Your task to perform on an android device: Open my contact list Image 0: 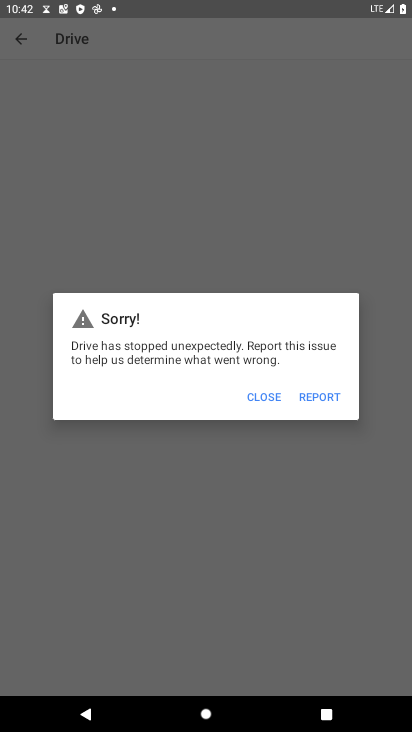
Step 0: press home button
Your task to perform on an android device: Open my contact list Image 1: 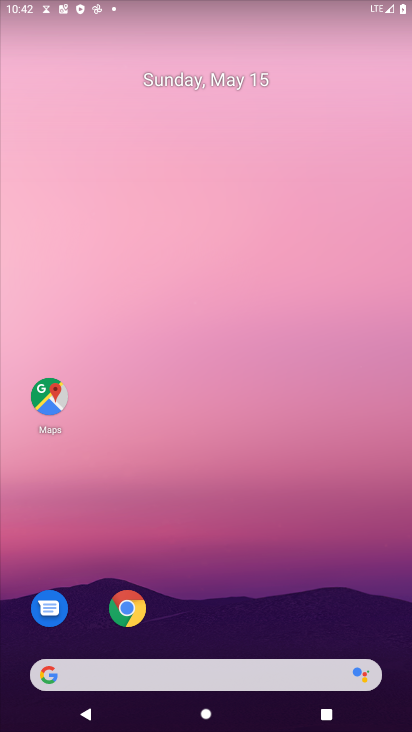
Step 1: drag from (375, 550) to (372, 1)
Your task to perform on an android device: Open my contact list Image 2: 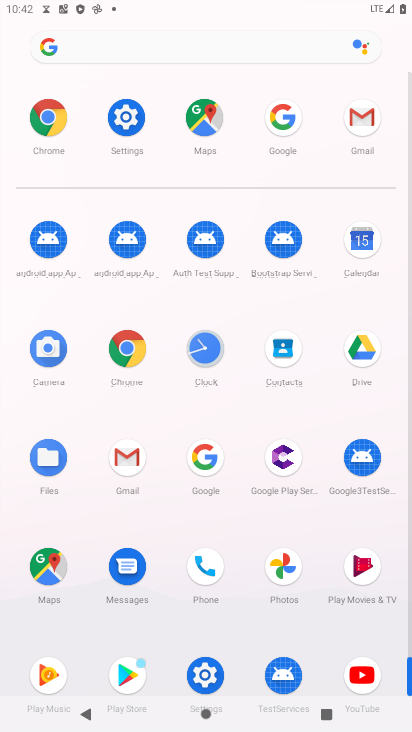
Step 2: click (355, 250)
Your task to perform on an android device: Open my contact list Image 3: 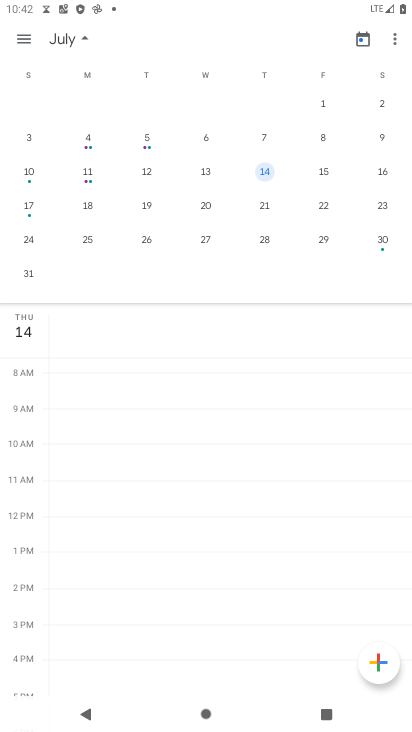
Step 3: press home button
Your task to perform on an android device: Open my contact list Image 4: 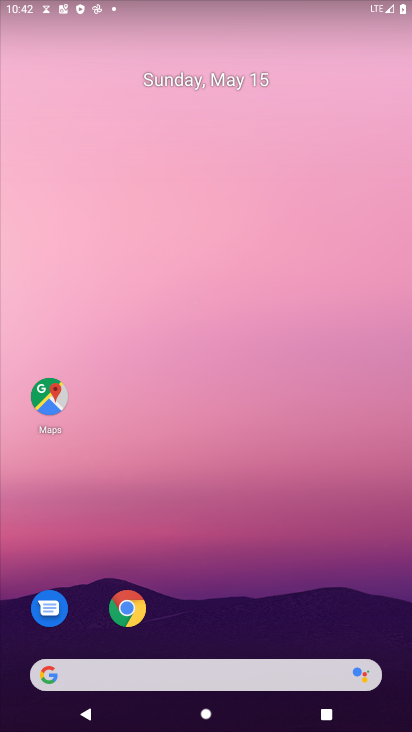
Step 4: drag from (294, 573) to (408, 121)
Your task to perform on an android device: Open my contact list Image 5: 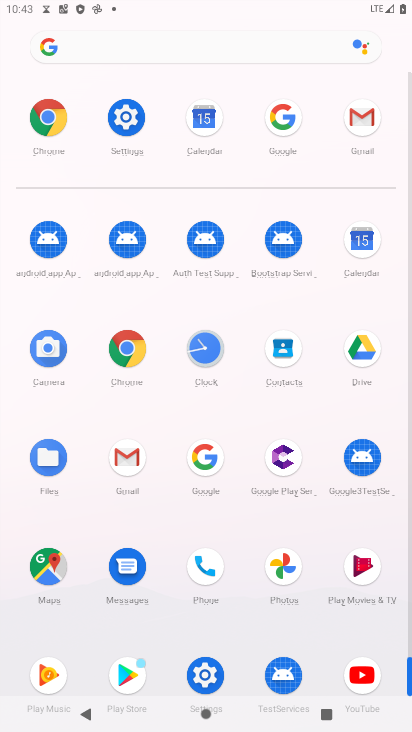
Step 5: click (199, 567)
Your task to perform on an android device: Open my contact list Image 6: 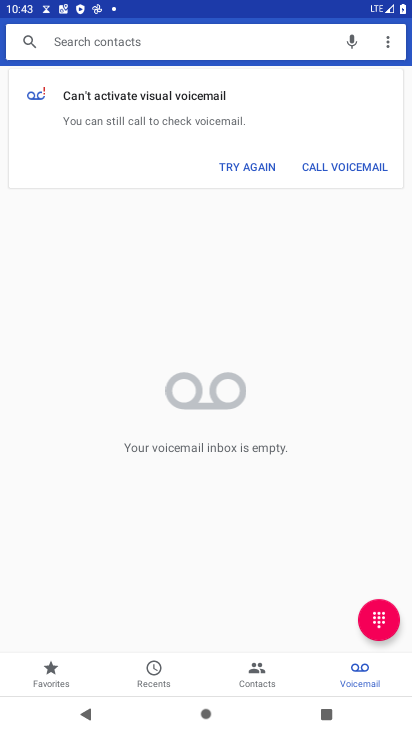
Step 6: click (266, 693)
Your task to perform on an android device: Open my contact list Image 7: 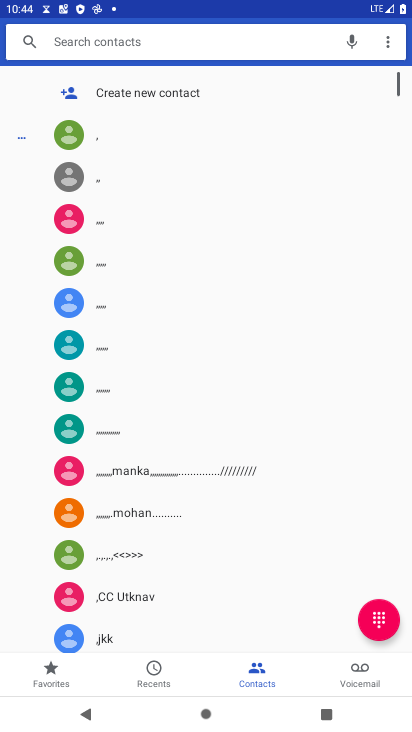
Step 7: task complete